Your task to perform on an android device: choose inbox layout in the gmail app Image 0: 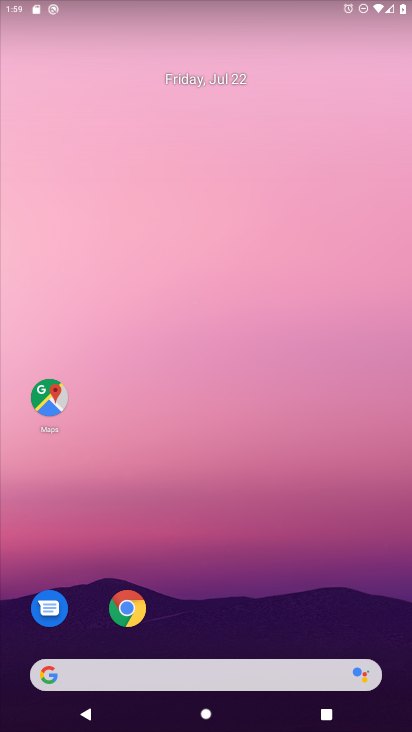
Step 0: drag from (348, 603) to (127, 48)
Your task to perform on an android device: choose inbox layout in the gmail app Image 1: 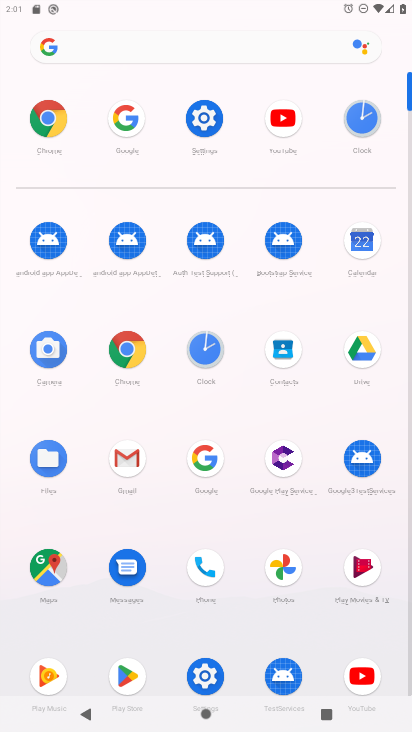
Step 1: click (125, 463)
Your task to perform on an android device: choose inbox layout in the gmail app Image 2: 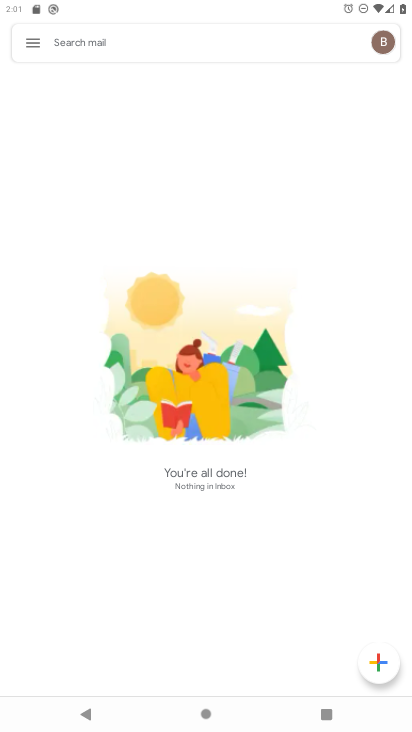
Step 2: task complete